Your task to perform on an android device: Go to Amazon Image 0: 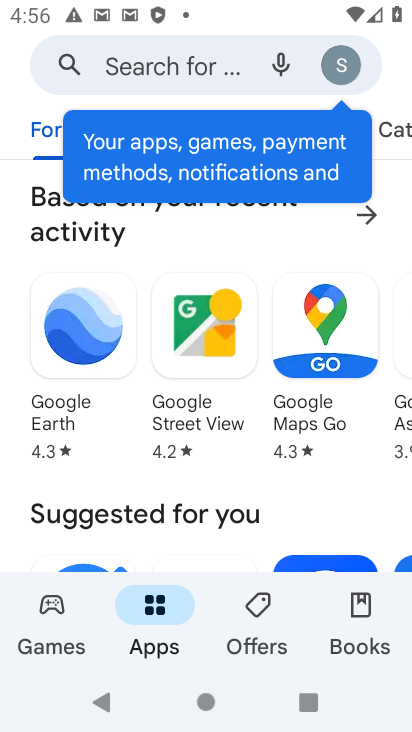
Step 0: press home button
Your task to perform on an android device: Go to Amazon Image 1: 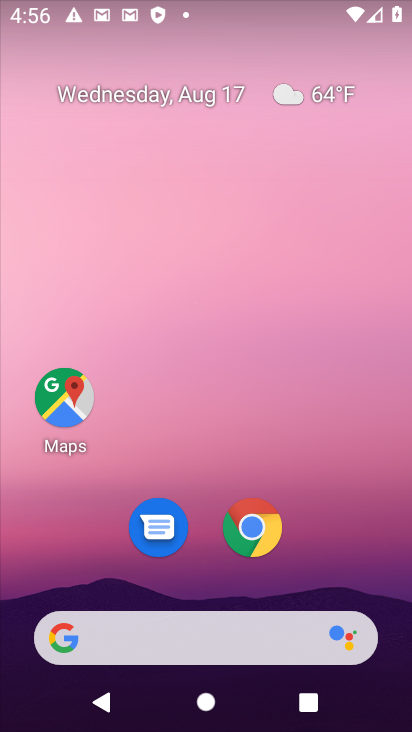
Step 1: drag from (169, 609) to (168, 177)
Your task to perform on an android device: Go to Amazon Image 2: 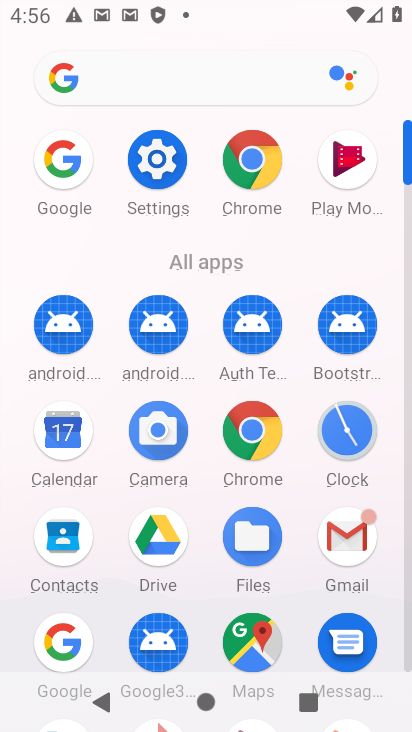
Step 2: click (56, 643)
Your task to perform on an android device: Go to Amazon Image 3: 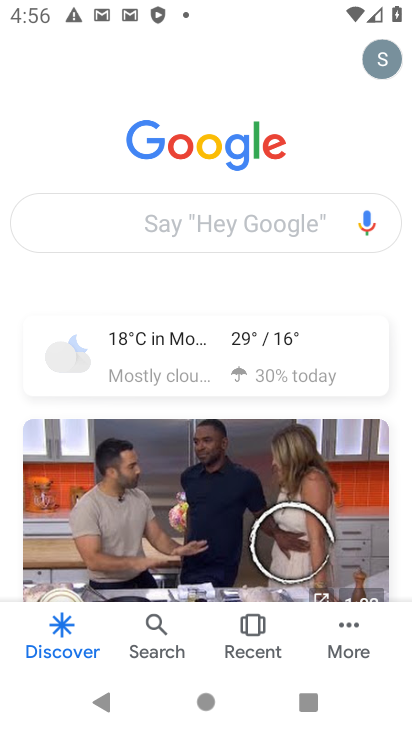
Step 3: click (165, 226)
Your task to perform on an android device: Go to Amazon Image 4: 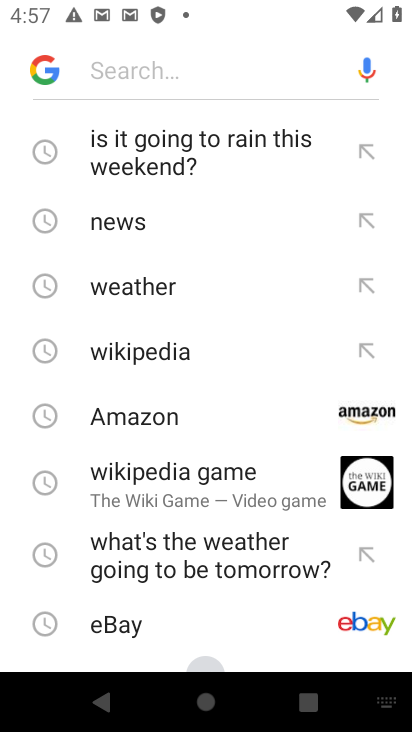
Step 4: click (155, 410)
Your task to perform on an android device: Go to Amazon Image 5: 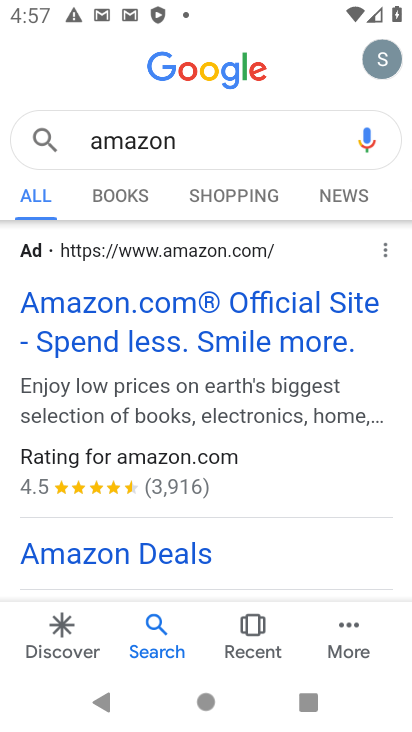
Step 5: click (186, 329)
Your task to perform on an android device: Go to Amazon Image 6: 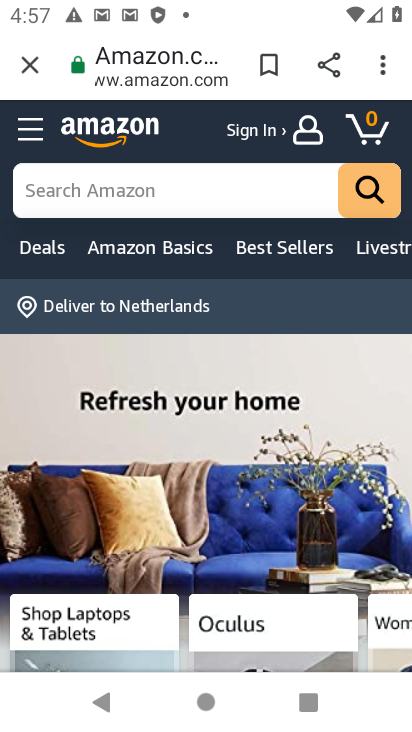
Step 6: task complete